Your task to perform on an android device: toggle sleep mode Image 0: 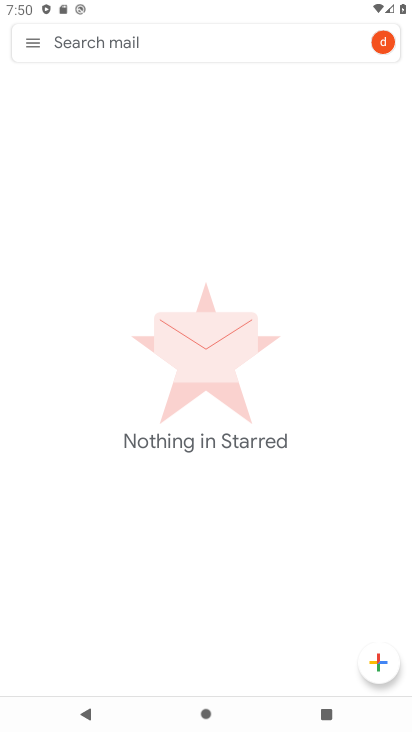
Step 0: press home button
Your task to perform on an android device: toggle sleep mode Image 1: 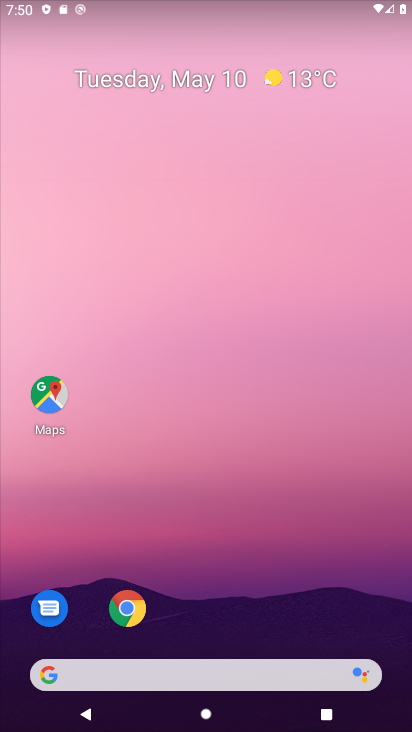
Step 1: drag from (138, 676) to (235, 154)
Your task to perform on an android device: toggle sleep mode Image 2: 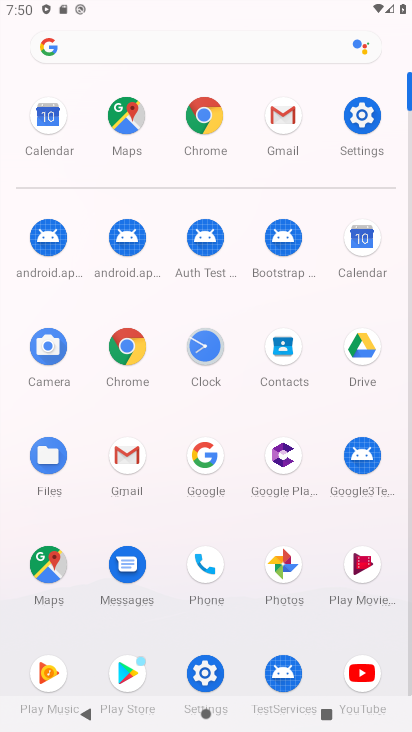
Step 2: click (372, 122)
Your task to perform on an android device: toggle sleep mode Image 3: 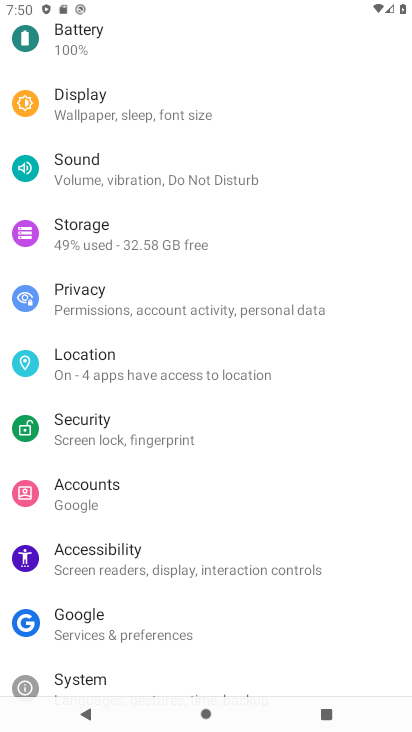
Step 3: click (127, 102)
Your task to perform on an android device: toggle sleep mode Image 4: 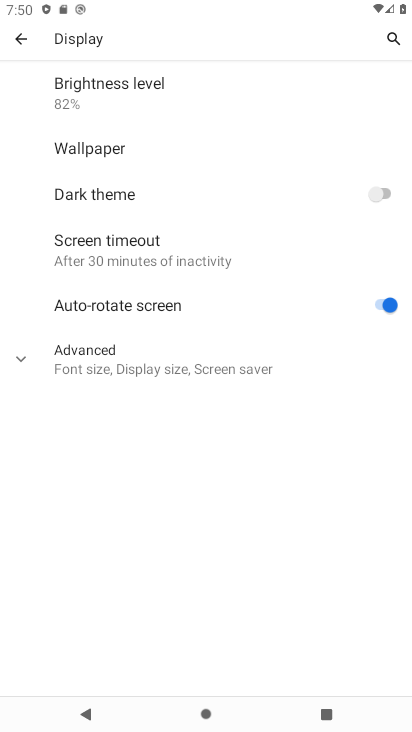
Step 4: click (21, 354)
Your task to perform on an android device: toggle sleep mode Image 5: 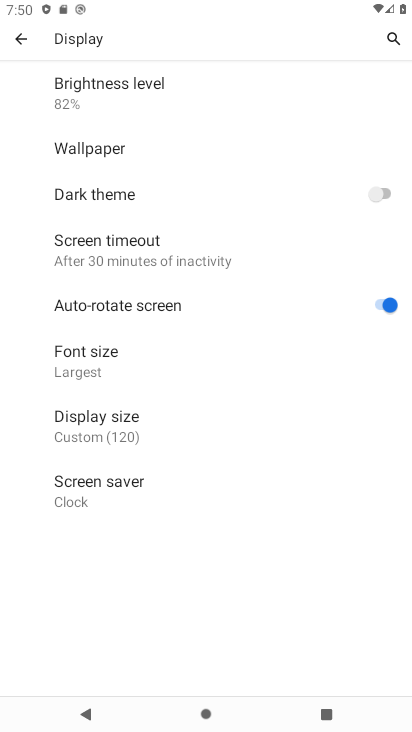
Step 5: task complete